Your task to perform on an android device: Open eBay Image 0: 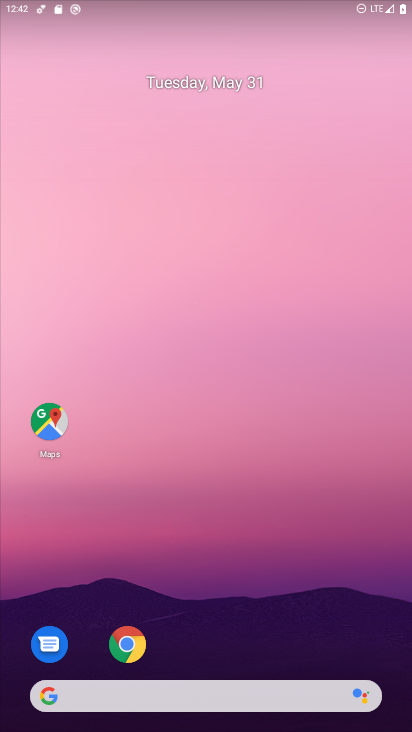
Step 0: drag from (169, 646) to (208, 94)
Your task to perform on an android device: Open eBay Image 1: 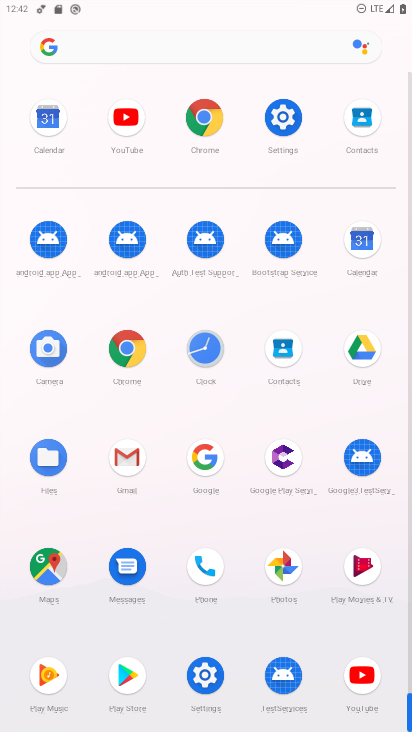
Step 1: click (140, 39)
Your task to perform on an android device: Open eBay Image 2: 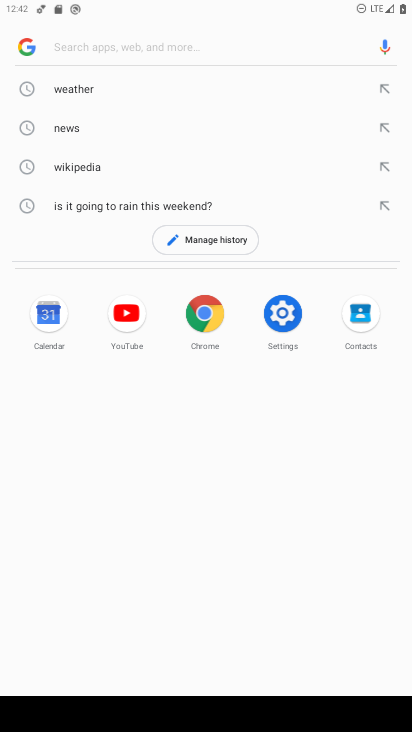
Step 2: type "eBay"
Your task to perform on an android device: Open eBay Image 3: 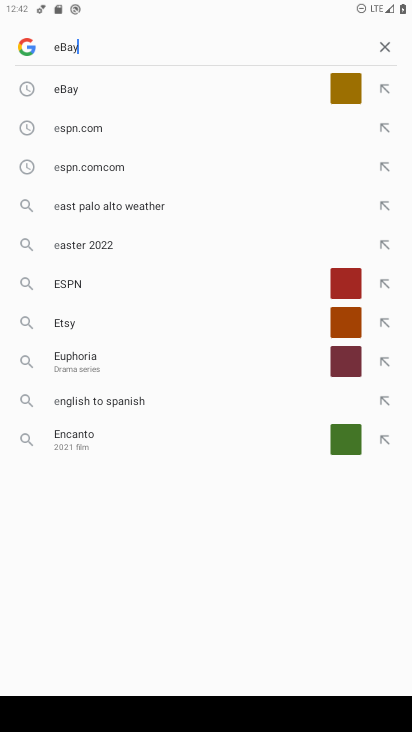
Step 3: type ""
Your task to perform on an android device: Open eBay Image 4: 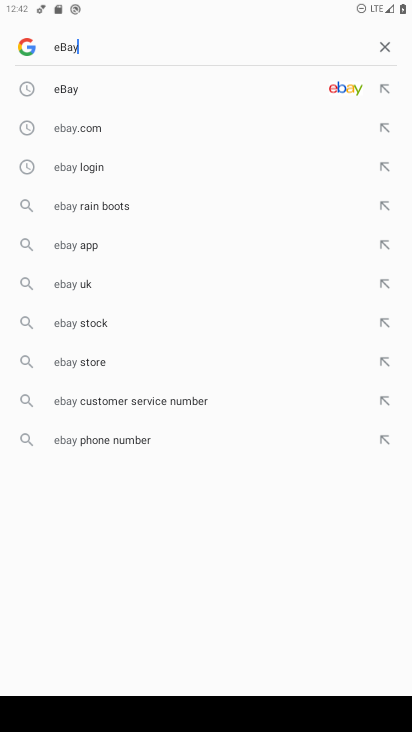
Step 4: click (90, 93)
Your task to perform on an android device: Open eBay Image 5: 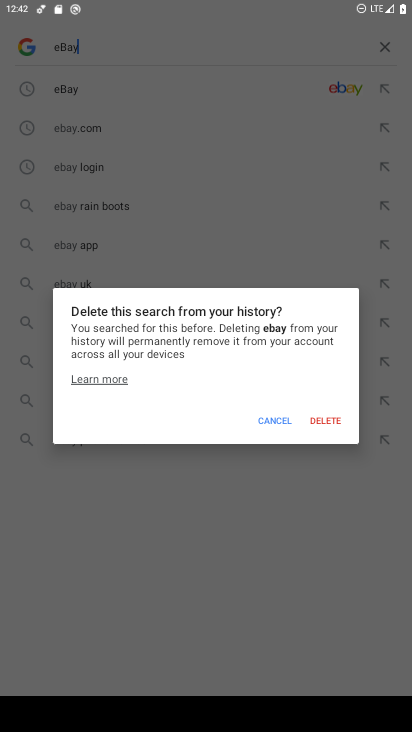
Step 5: click (270, 414)
Your task to perform on an android device: Open eBay Image 6: 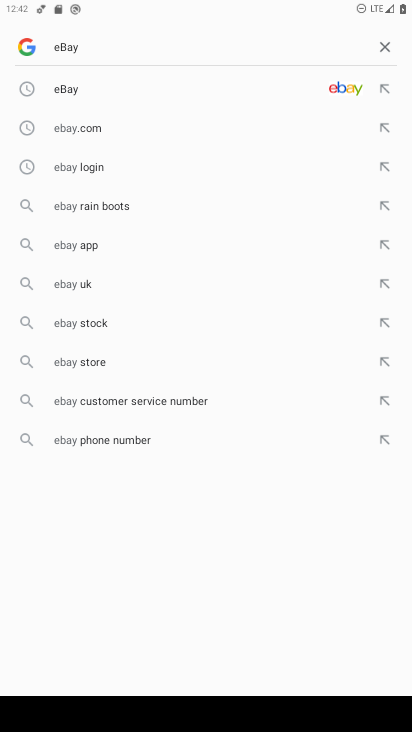
Step 6: click (42, 83)
Your task to perform on an android device: Open eBay Image 7: 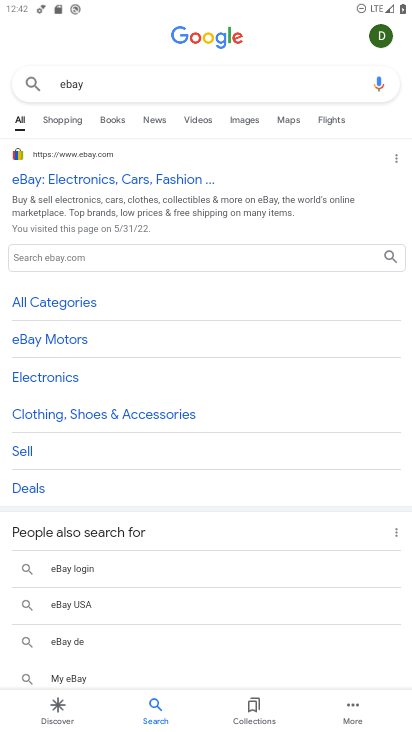
Step 7: drag from (162, 605) to (246, 279)
Your task to perform on an android device: Open eBay Image 8: 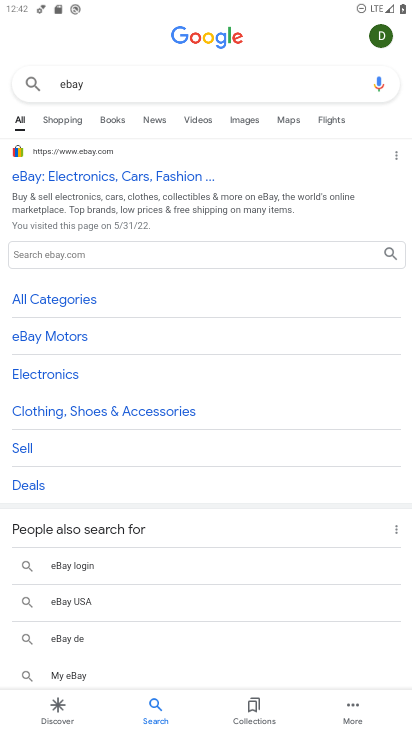
Step 8: drag from (231, 287) to (182, 616)
Your task to perform on an android device: Open eBay Image 9: 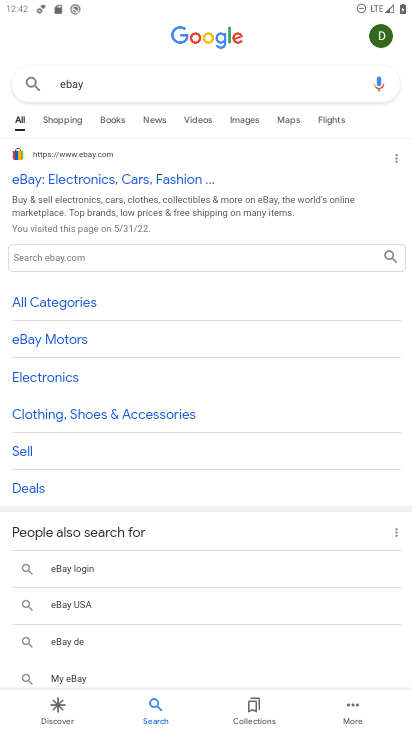
Step 9: click (79, 177)
Your task to perform on an android device: Open eBay Image 10: 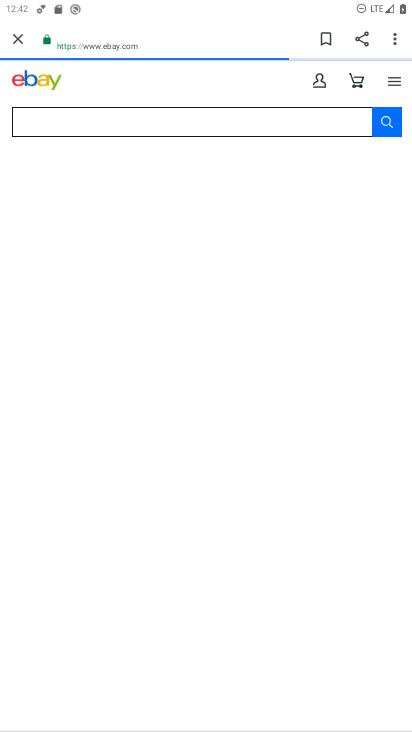
Step 10: task complete